Your task to perform on an android device: Open Youtube and go to "Your channel" Image 0: 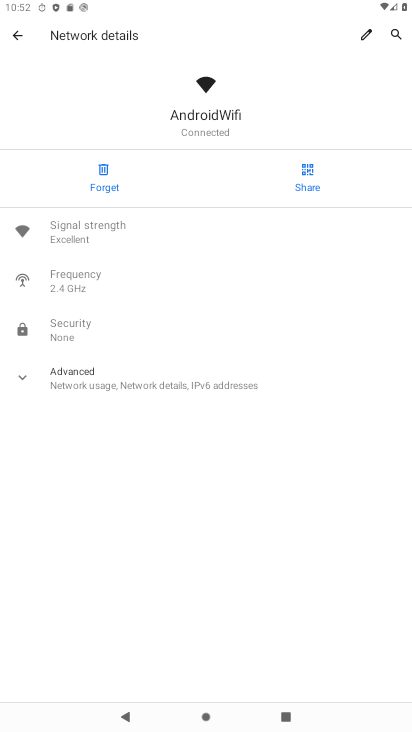
Step 0: press home button
Your task to perform on an android device: Open Youtube and go to "Your channel" Image 1: 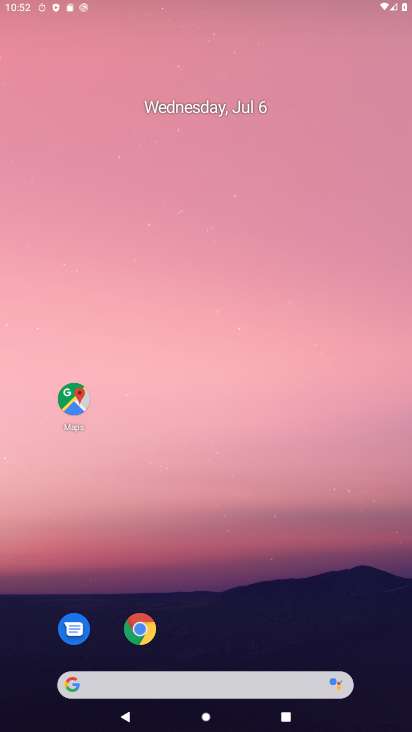
Step 1: drag from (222, 629) to (166, 111)
Your task to perform on an android device: Open Youtube and go to "Your channel" Image 2: 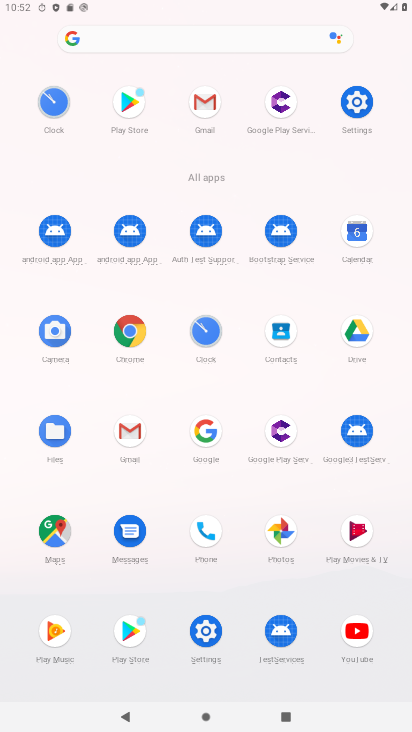
Step 2: click (361, 627)
Your task to perform on an android device: Open Youtube and go to "Your channel" Image 3: 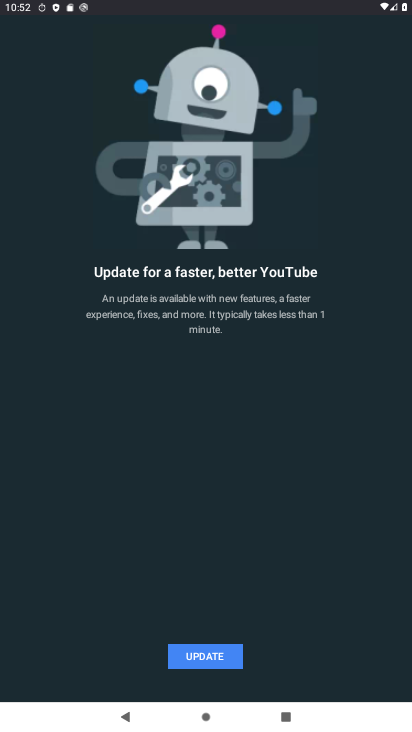
Step 3: drag from (309, 308) to (258, 350)
Your task to perform on an android device: Open Youtube and go to "Your channel" Image 4: 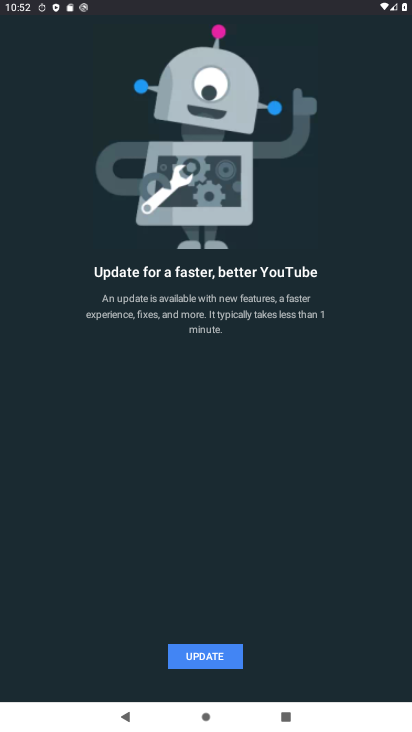
Step 4: click (216, 656)
Your task to perform on an android device: Open Youtube and go to "Your channel" Image 5: 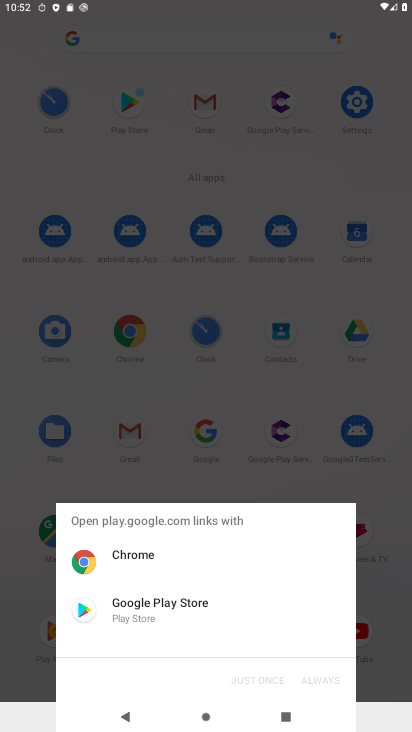
Step 5: click (186, 605)
Your task to perform on an android device: Open Youtube and go to "Your channel" Image 6: 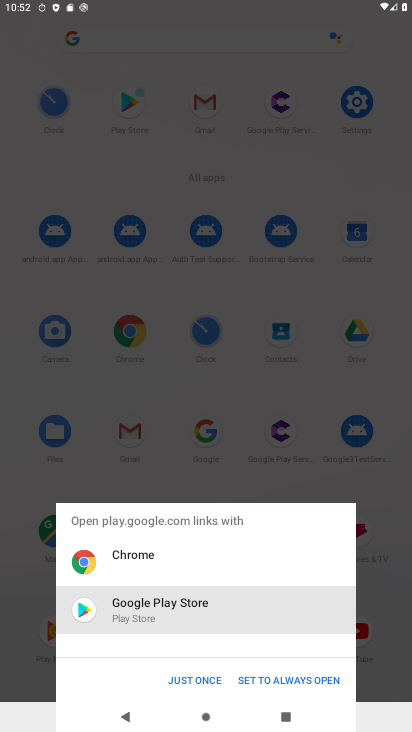
Step 6: click (193, 677)
Your task to perform on an android device: Open Youtube and go to "Your channel" Image 7: 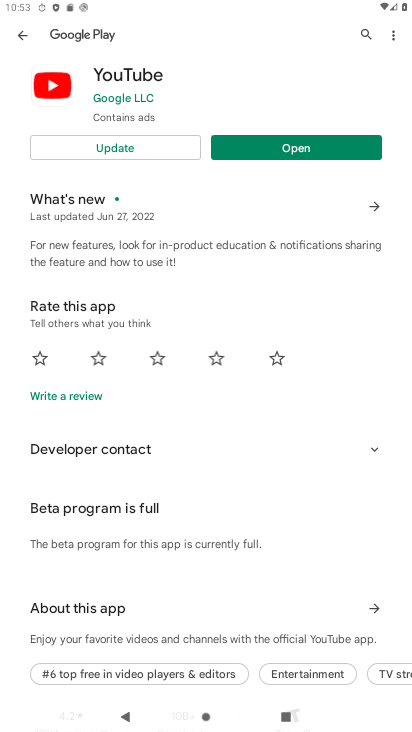
Step 7: click (129, 140)
Your task to perform on an android device: Open Youtube and go to "Your channel" Image 8: 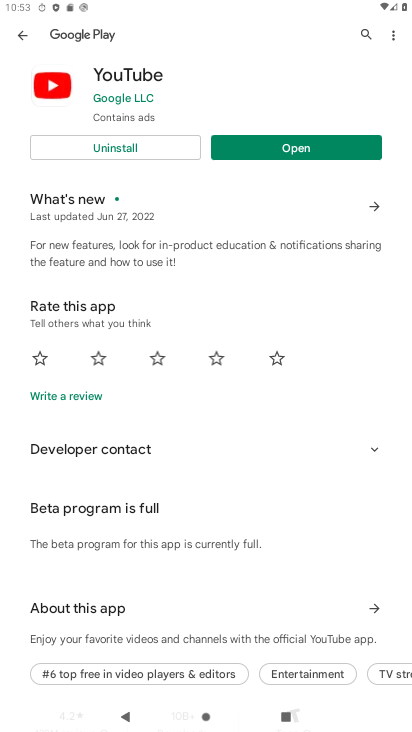
Step 8: click (287, 144)
Your task to perform on an android device: Open Youtube and go to "Your channel" Image 9: 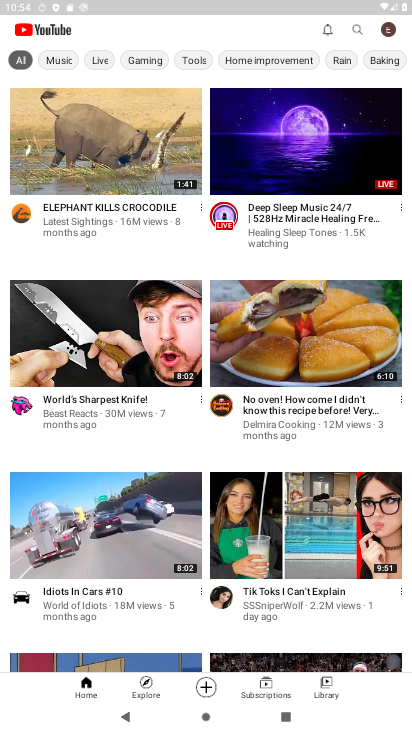
Step 9: click (383, 28)
Your task to perform on an android device: Open Youtube and go to "Your channel" Image 10: 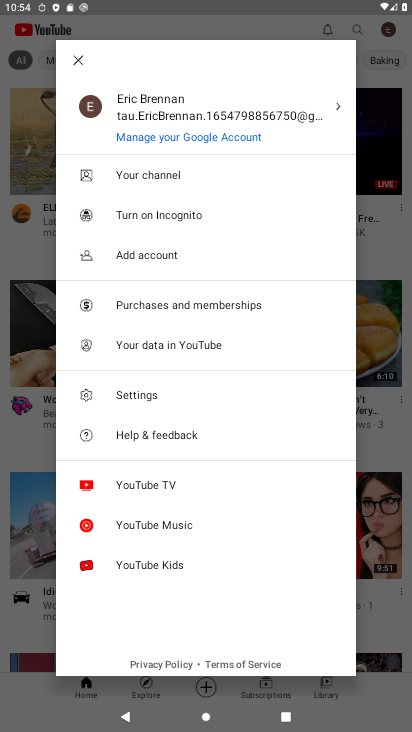
Step 10: click (148, 177)
Your task to perform on an android device: Open Youtube and go to "Your channel" Image 11: 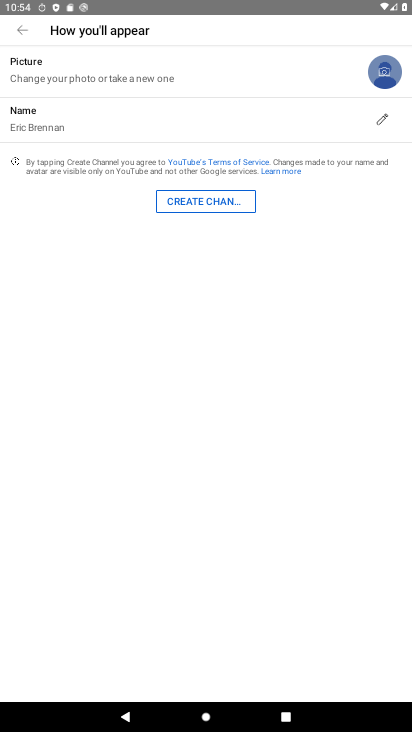
Step 11: task complete